Your task to perform on an android device: clear history in the chrome app Image 0: 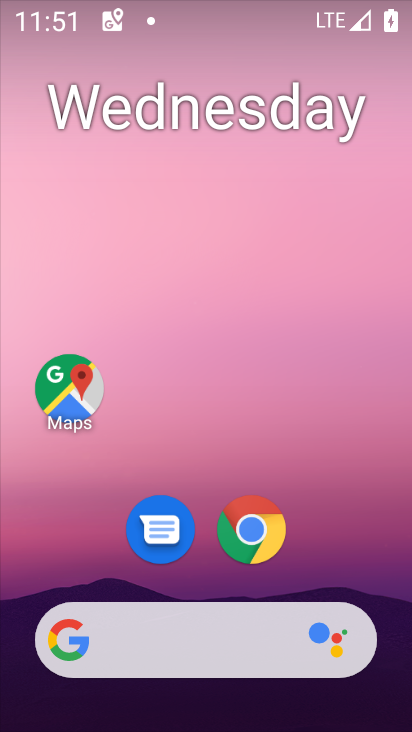
Step 0: click (249, 528)
Your task to perform on an android device: clear history in the chrome app Image 1: 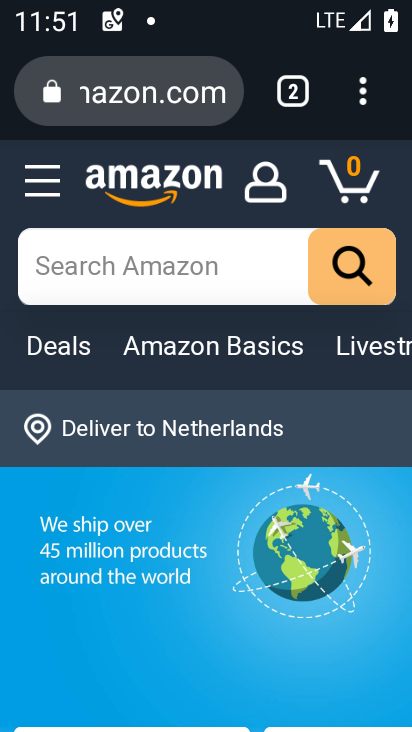
Step 1: click (360, 102)
Your task to perform on an android device: clear history in the chrome app Image 2: 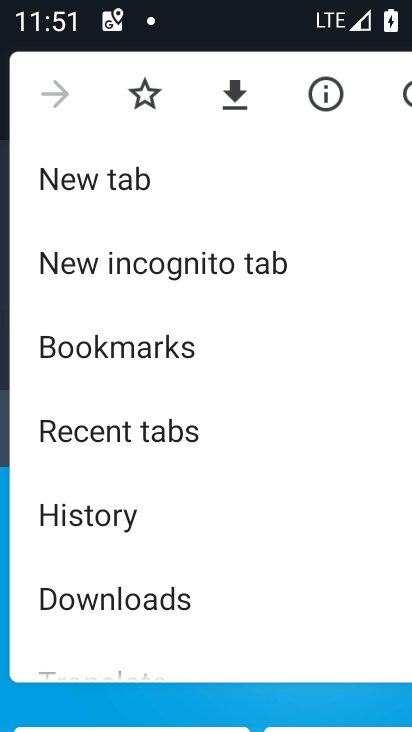
Step 2: click (113, 524)
Your task to perform on an android device: clear history in the chrome app Image 3: 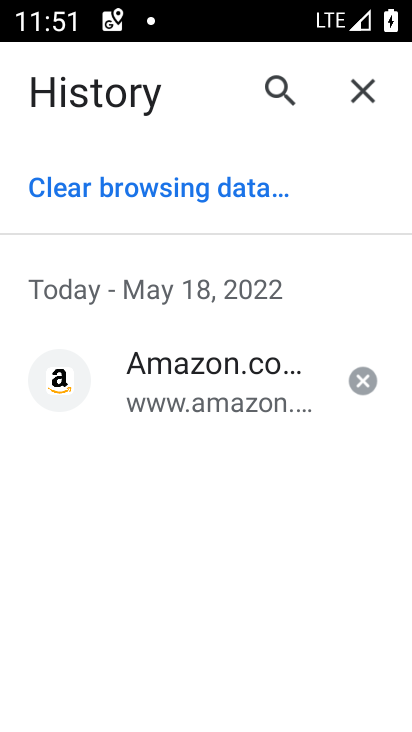
Step 3: click (124, 182)
Your task to perform on an android device: clear history in the chrome app Image 4: 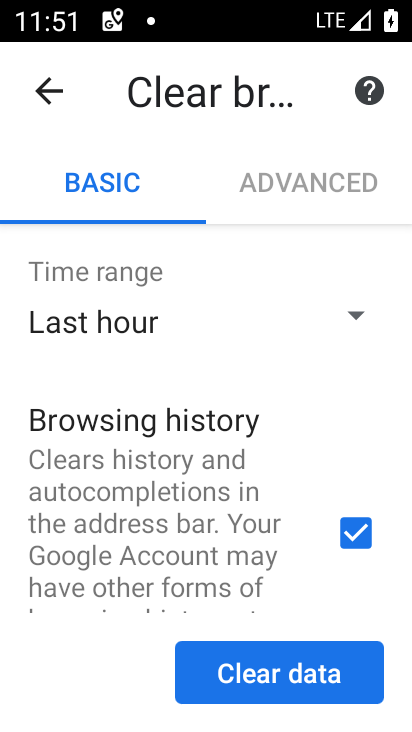
Step 4: click (296, 153)
Your task to perform on an android device: clear history in the chrome app Image 5: 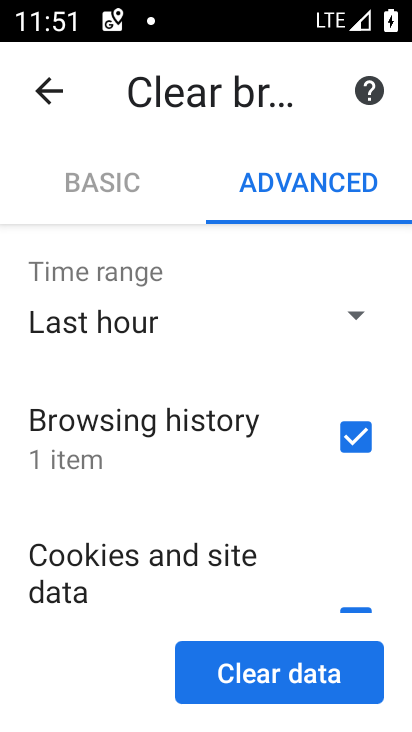
Step 5: click (85, 154)
Your task to perform on an android device: clear history in the chrome app Image 6: 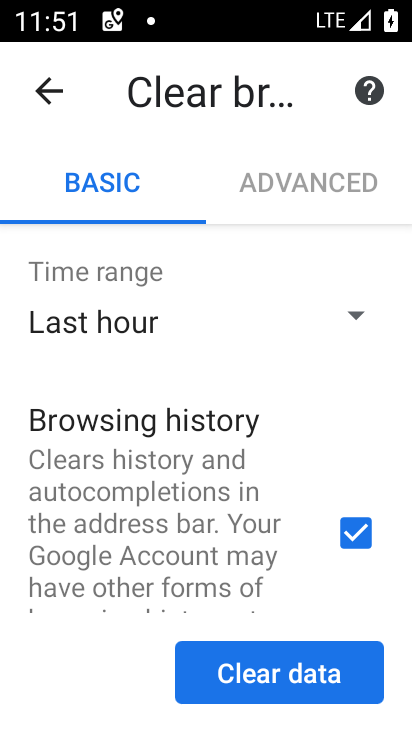
Step 6: drag from (280, 589) to (255, 155)
Your task to perform on an android device: clear history in the chrome app Image 7: 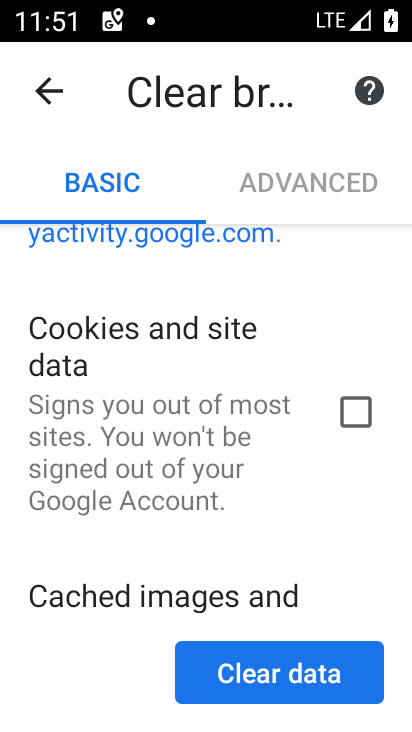
Step 7: drag from (292, 579) to (272, 232)
Your task to perform on an android device: clear history in the chrome app Image 8: 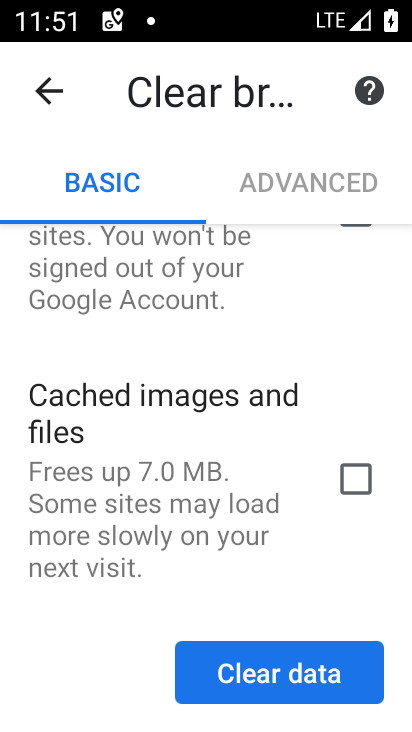
Step 8: click (289, 683)
Your task to perform on an android device: clear history in the chrome app Image 9: 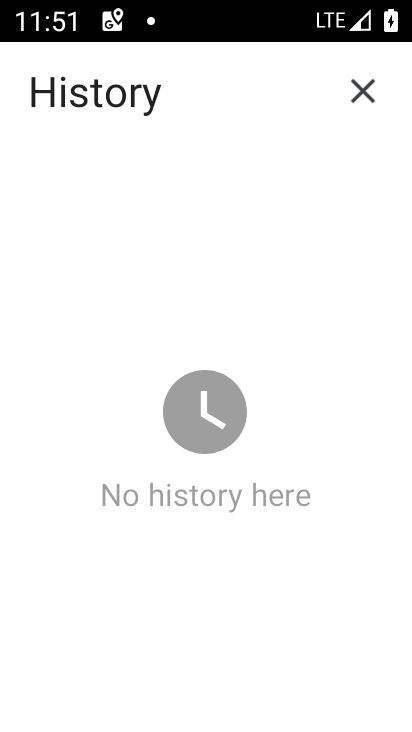
Step 9: task complete